Your task to perform on an android device: Open my contact list Image 0: 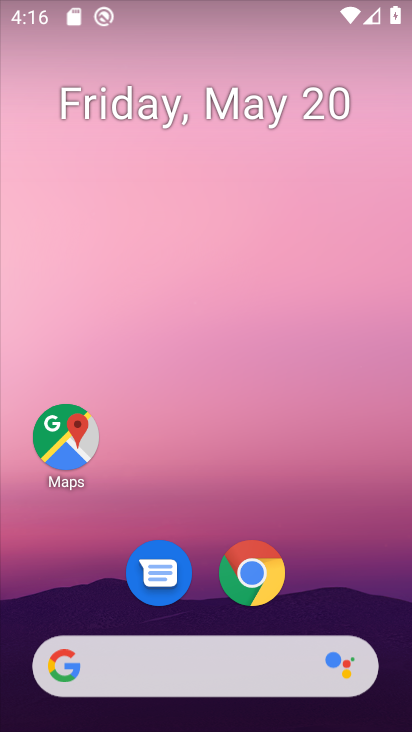
Step 0: drag from (253, 717) to (196, 0)
Your task to perform on an android device: Open my contact list Image 1: 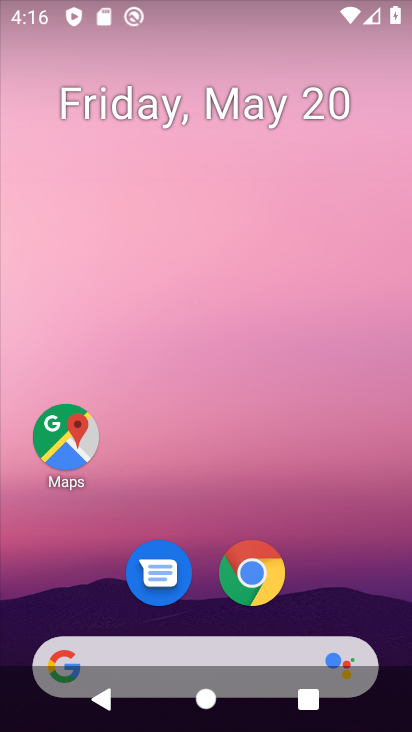
Step 1: drag from (303, 562) to (158, 136)
Your task to perform on an android device: Open my contact list Image 2: 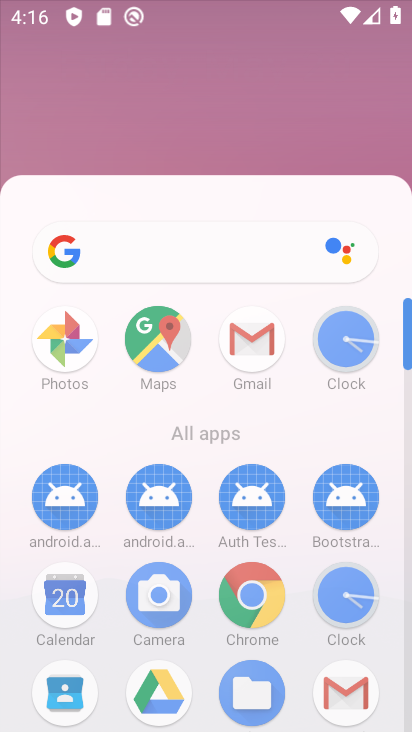
Step 2: drag from (304, 521) to (216, 148)
Your task to perform on an android device: Open my contact list Image 3: 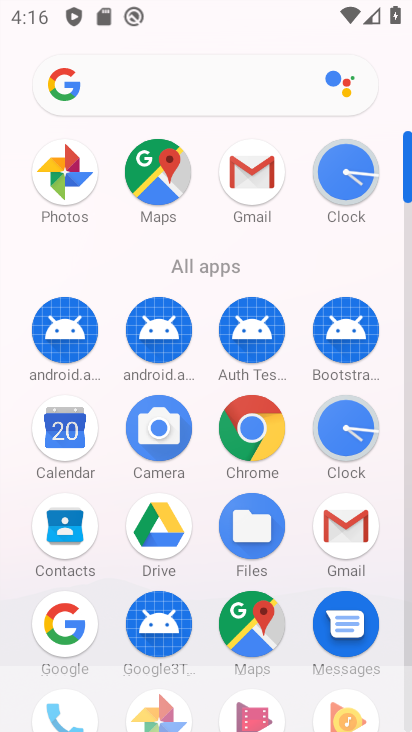
Step 3: click (61, 528)
Your task to perform on an android device: Open my contact list Image 4: 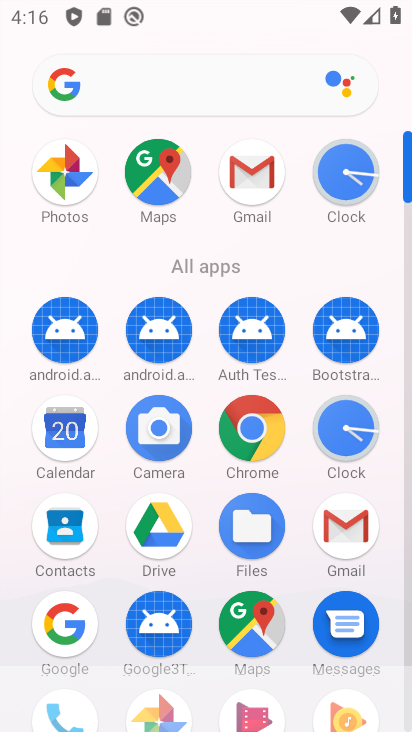
Step 4: click (61, 528)
Your task to perform on an android device: Open my contact list Image 5: 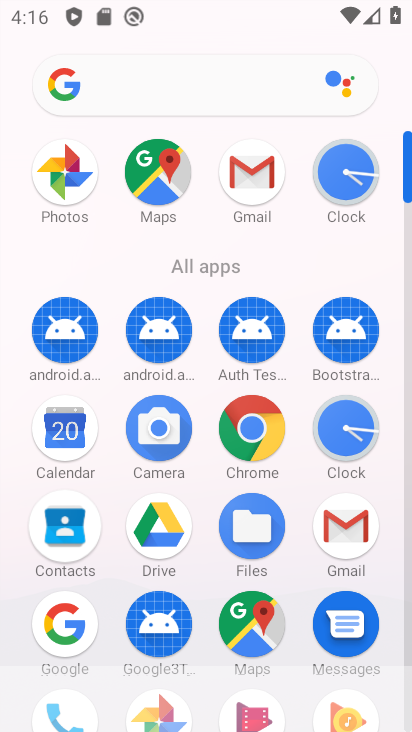
Step 5: click (63, 524)
Your task to perform on an android device: Open my contact list Image 6: 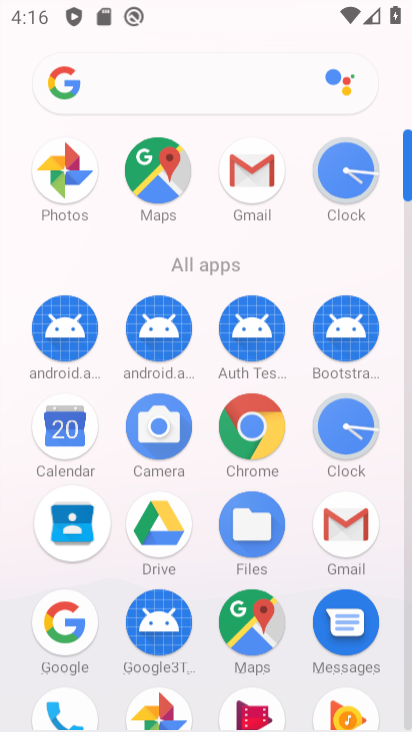
Step 6: click (69, 517)
Your task to perform on an android device: Open my contact list Image 7: 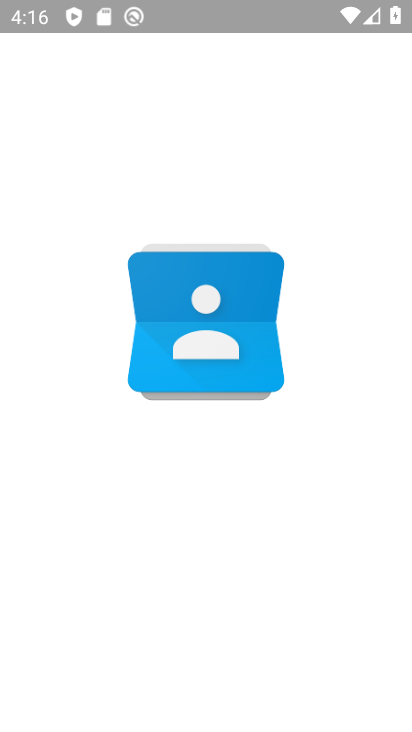
Step 7: click (67, 497)
Your task to perform on an android device: Open my contact list Image 8: 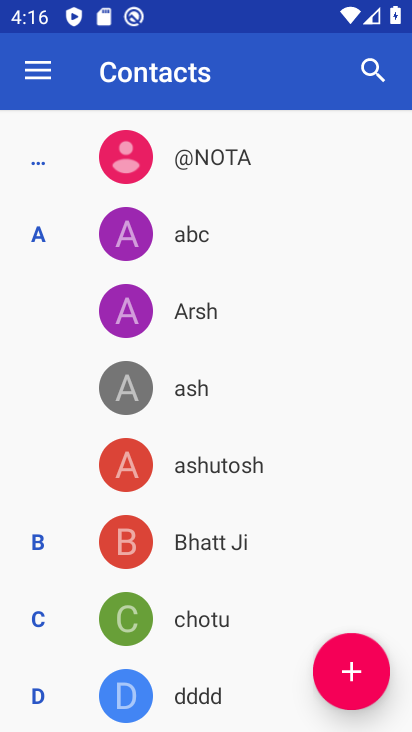
Step 8: press back button
Your task to perform on an android device: Open my contact list Image 9: 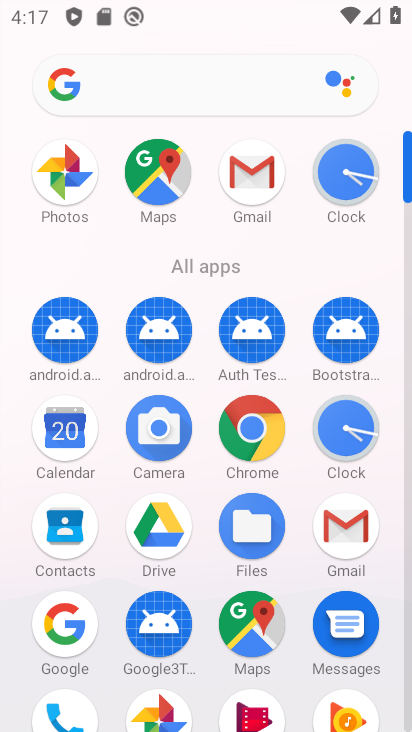
Step 9: click (62, 523)
Your task to perform on an android device: Open my contact list Image 10: 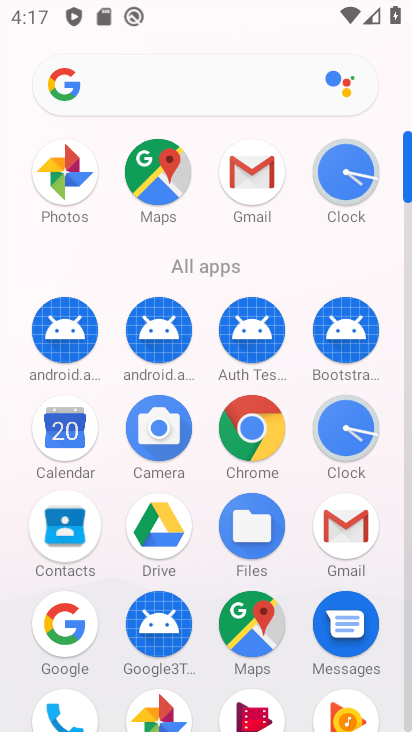
Step 10: click (62, 523)
Your task to perform on an android device: Open my contact list Image 11: 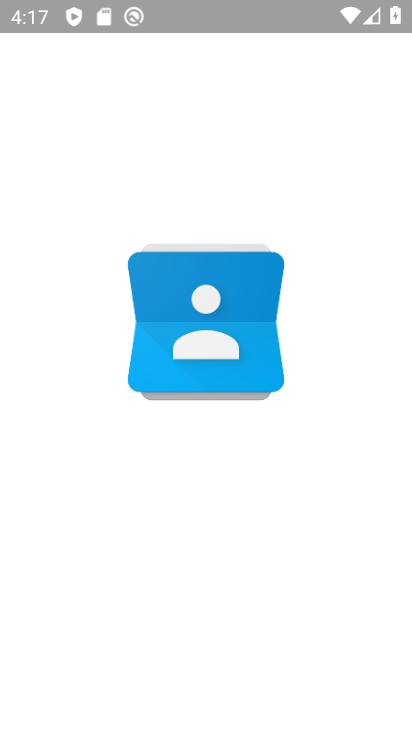
Step 11: click (58, 533)
Your task to perform on an android device: Open my contact list Image 12: 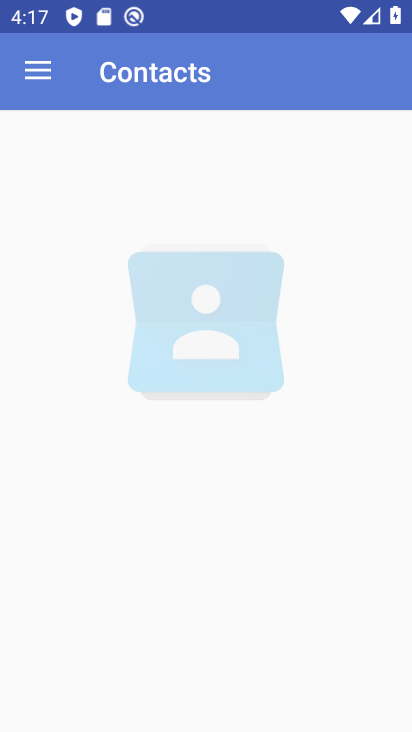
Step 12: click (60, 532)
Your task to perform on an android device: Open my contact list Image 13: 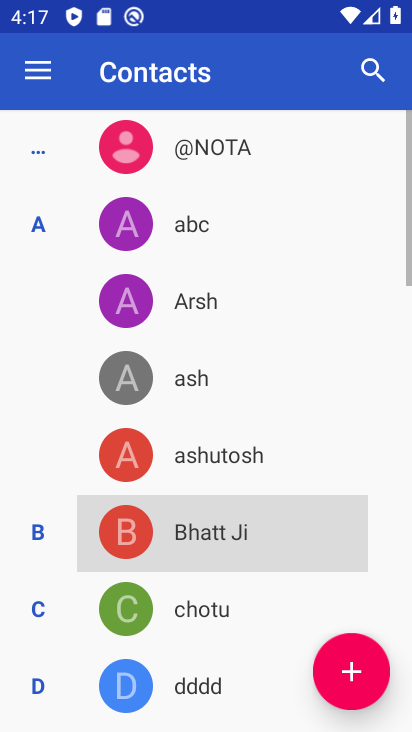
Step 13: click (63, 530)
Your task to perform on an android device: Open my contact list Image 14: 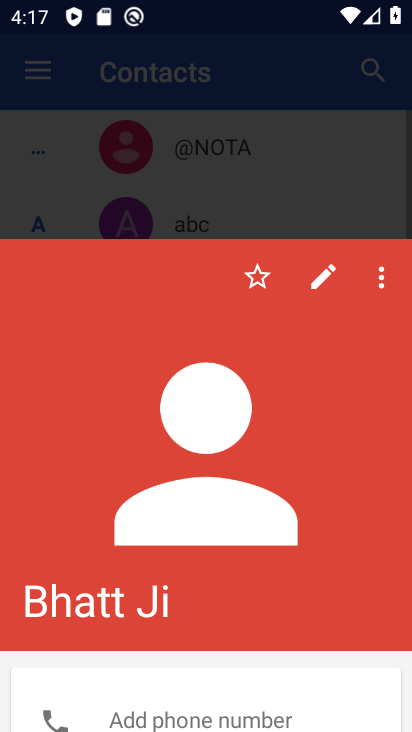
Step 14: task complete